Your task to perform on an android device: Where can I buy a nice beach bag? Image 0: 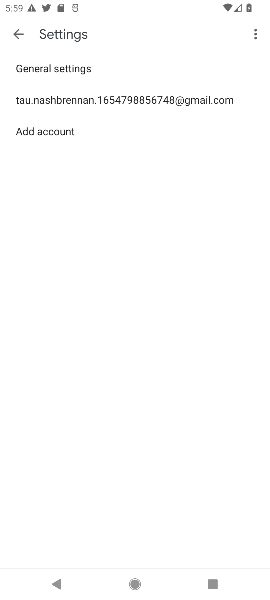
Step 0: click (133, 587)
Your task to perform on an android device: Where can I buy a nice beach bag? Image 1: 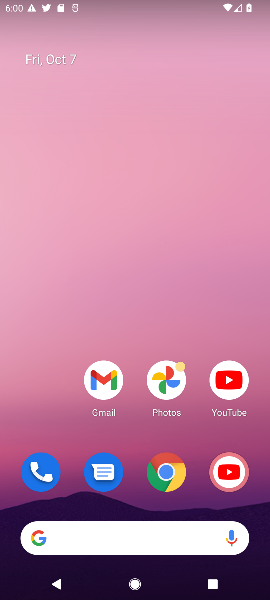
Step 1: click (160, 493)
Your task to perform on an android device: Where can I buy a nice beach bag? Image 2: 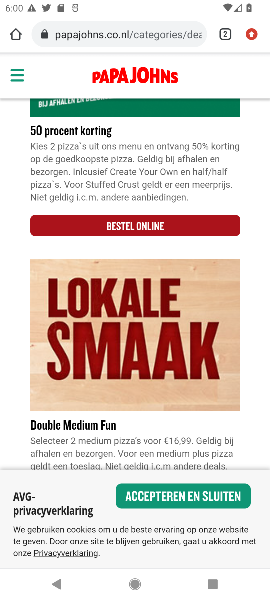
Step 2: click (173, 27)
Your task to perform on an android device: Where can I buy a nice beach bag? Image 3: 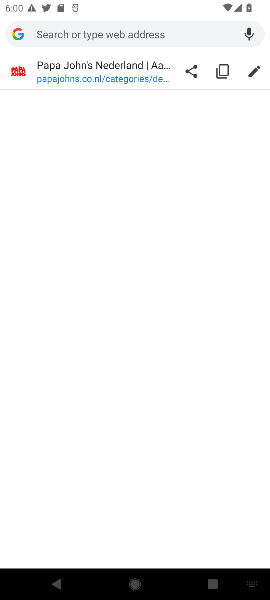
Step 3: type "Where can I buy a nice beach bag"
Your task to perform on an android device: Where can I buy a nice beach bag? Image 4: 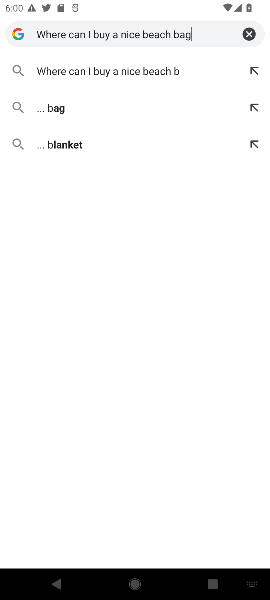
Step 4: type ""
Your task to perform on an android device: Where can I buy a nice beach bag? Image 5: 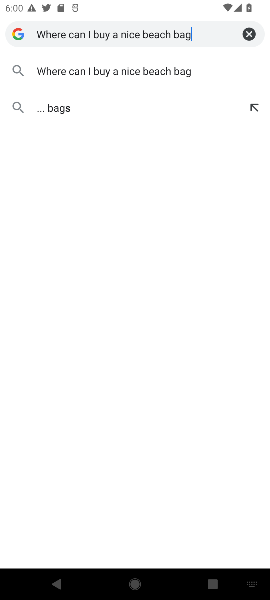
Step 5: press enter
Your task to perform on an android device: Where can I buy a nice beach bag? Image 6: 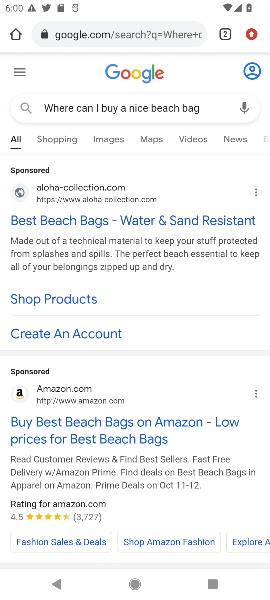
Step 6: drag from (180, 436) to (185, 290)
Your task to perform on an android device: Where can I buy a nice beach bag? Image 7: 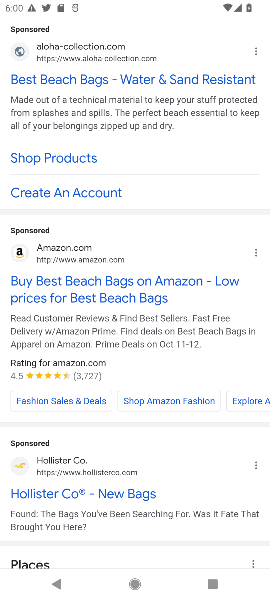
Step 7: drag from (183, 441) to (203, 259)
Your task to perform on an android device: Where can I buy a nice beach bag? Image 8: 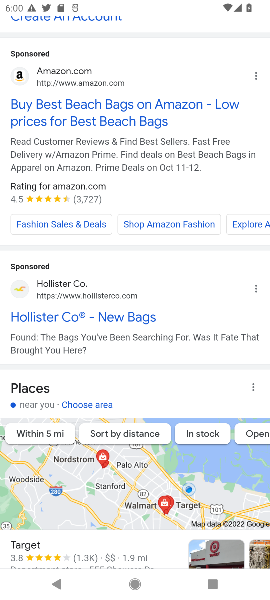
Step 8: drag from (187, 388) to (241, 168)
Your task to perform on an android device: Where can I buy a nice beach bag? Image 9: 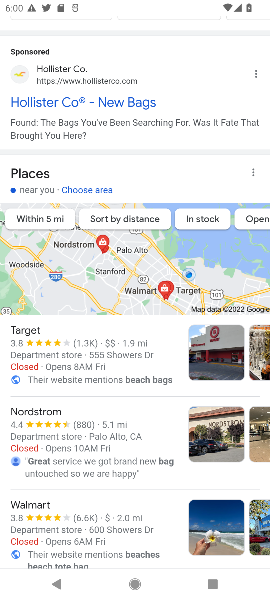
Step 9: click (159, 420)
Your task to perform on an android device: Where can I buy a nice beach bag? Image 10: 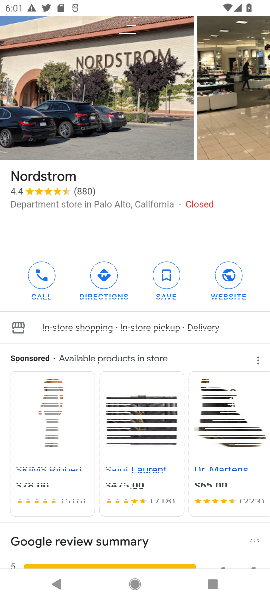
Step 10: task complete